Your task to perform on an android device: Open Maps and search for coffee Image 0: 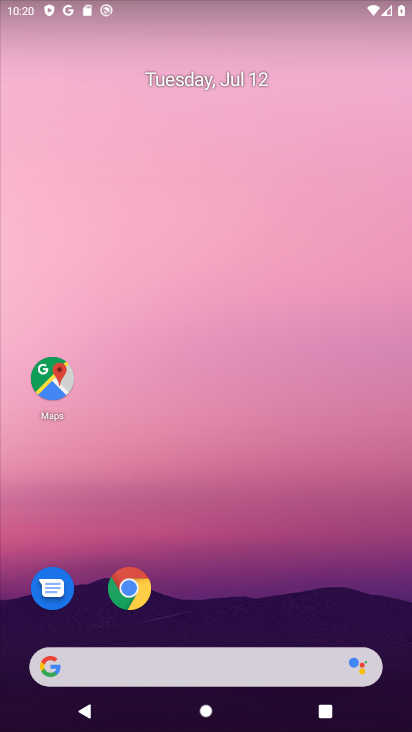
Step 0: drag from (338, 622) to (338, 342)
Your task to perform on an android device: Open Maps and search for coffee Image 1: 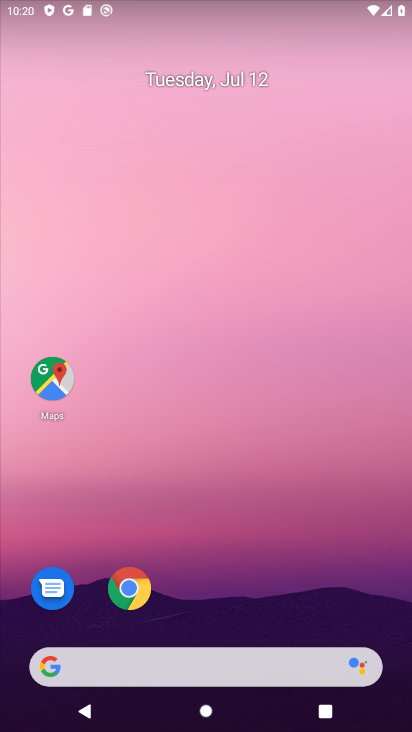
Step 1: drag from (244, 534) to (188, 11)
Your task to perform on an android device: Open Maps and search for coffee Image 2: 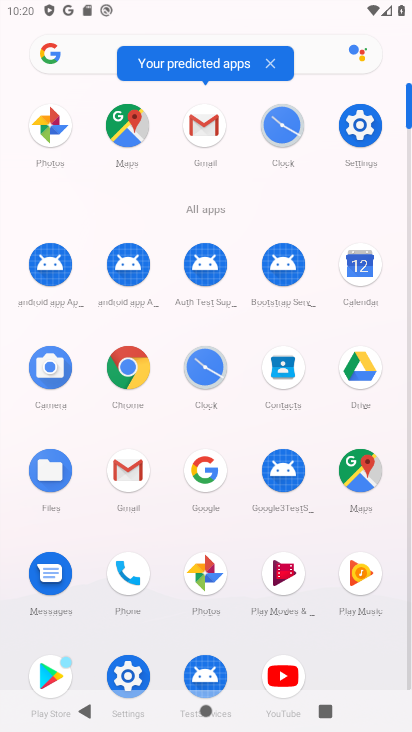
Step 2: click (128, 135)
Your task to perform on an android device: Open Maps and search for coffee Image 3: 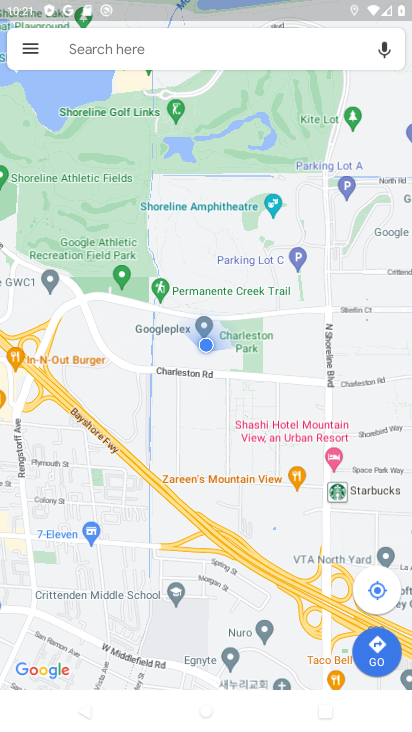
Step 3: click (111, 50)
Your task to perform on an android device: Open Maps and search for coffee Image 4: 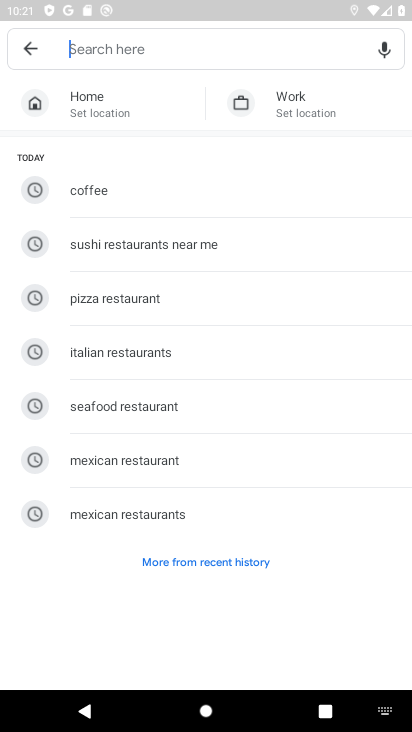
Step 4: type "coffee"
Your task to perform on an android device: Open Maps and search for coffee Image 5: 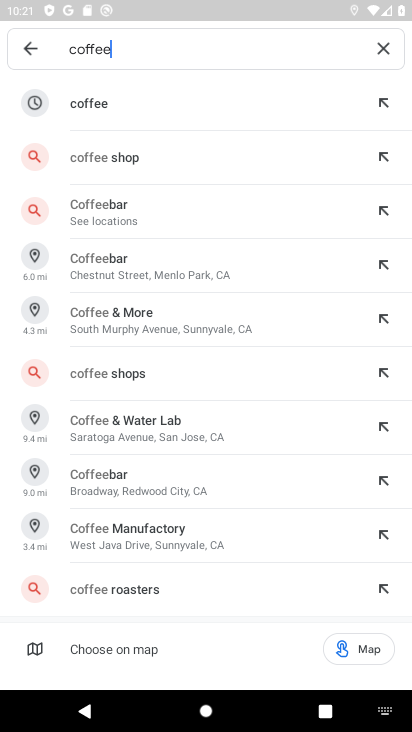
Step 5: click (101, 106)
Your task to perform on an android device: Open Maps and search for coffee Image 6: 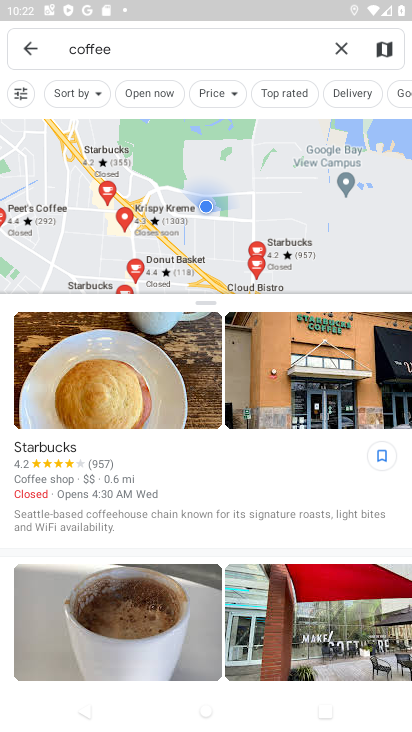
Step 6: task complete